Your task to perform on an android device: Open Google Image 0: 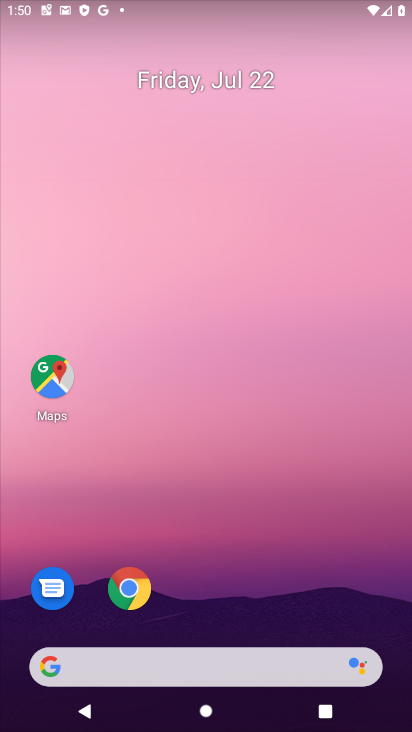
Step 0: drag from (254, 575) to (279, 17)
Your task to perform on an android device: Open Google Image 1: 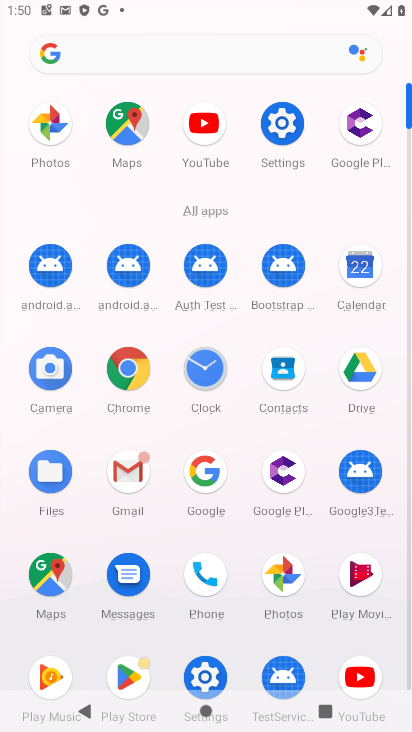
Step 1: click (209, 469)
Your task to perform on an android device: Open Google Image 2: 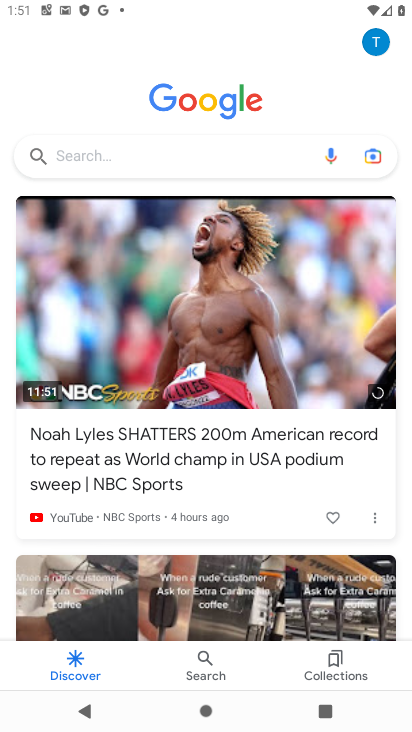
Step 2: task complete